Your task to perform on an android device: star an email in the gmail app Image 0: 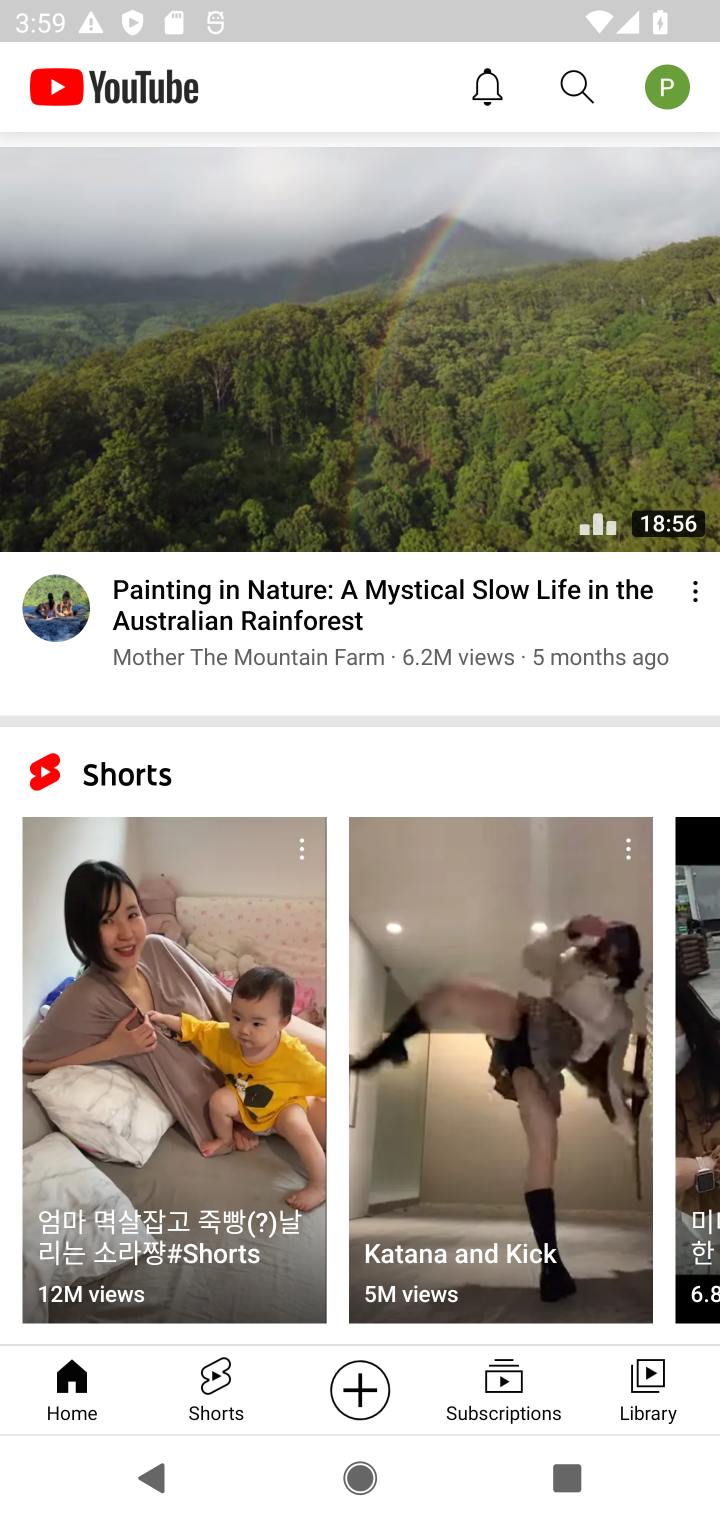
Step 0: press home button
Your task to perform on an android device: star an email in the gmail app Image 1: 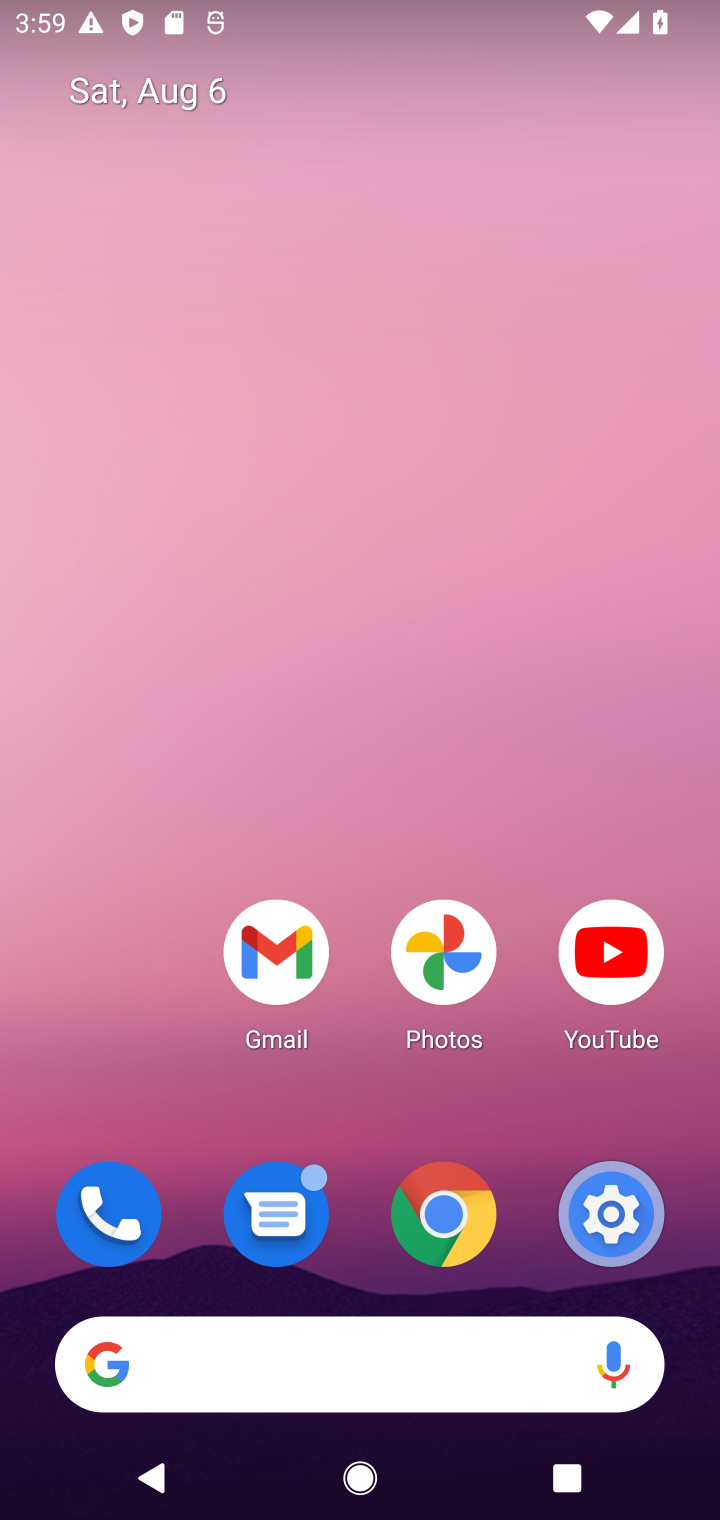
Step 1: click (286, 958)
Your task to perform on an android device: star an email in the gmail app Image 2: 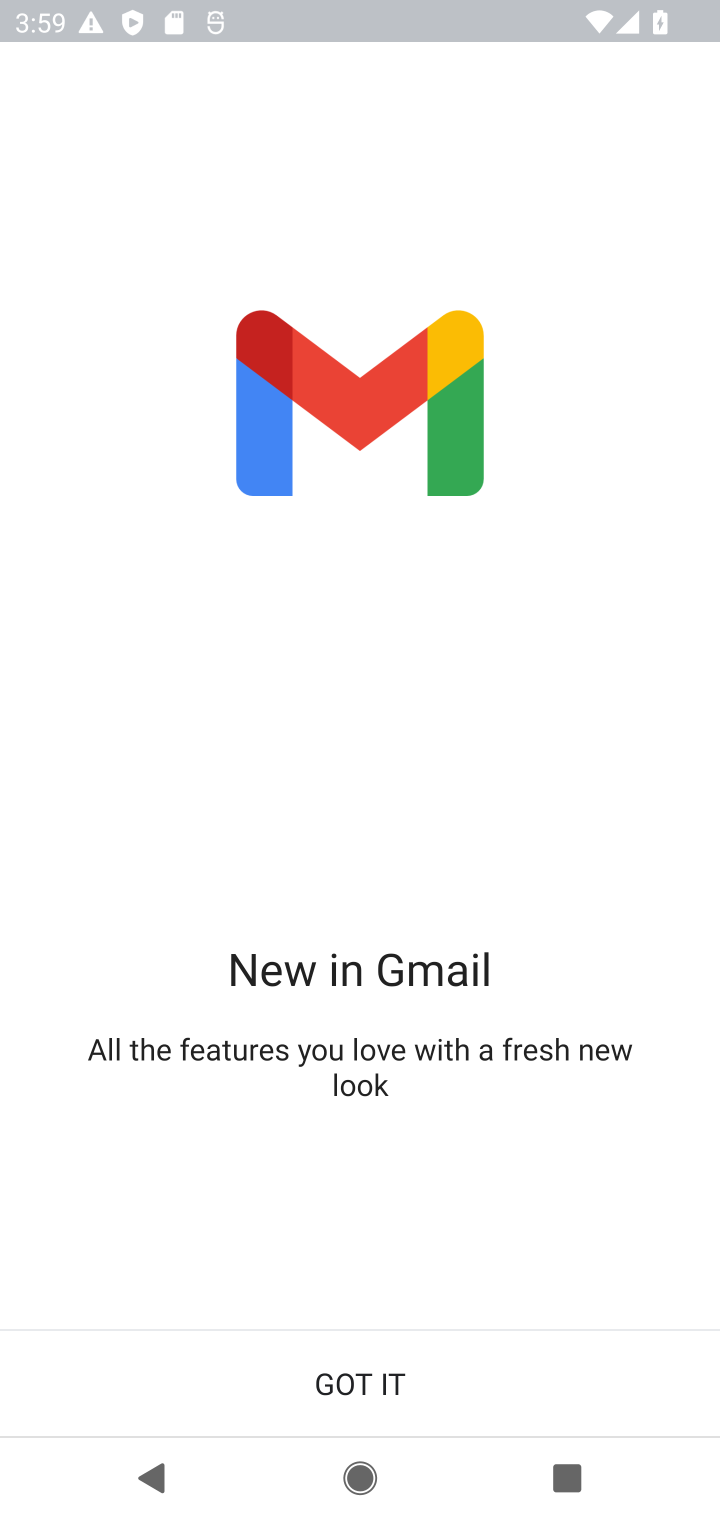
Step 2: click (370, 1379)
Your task to perform on an android device: star an email in the gmail app Image 3: 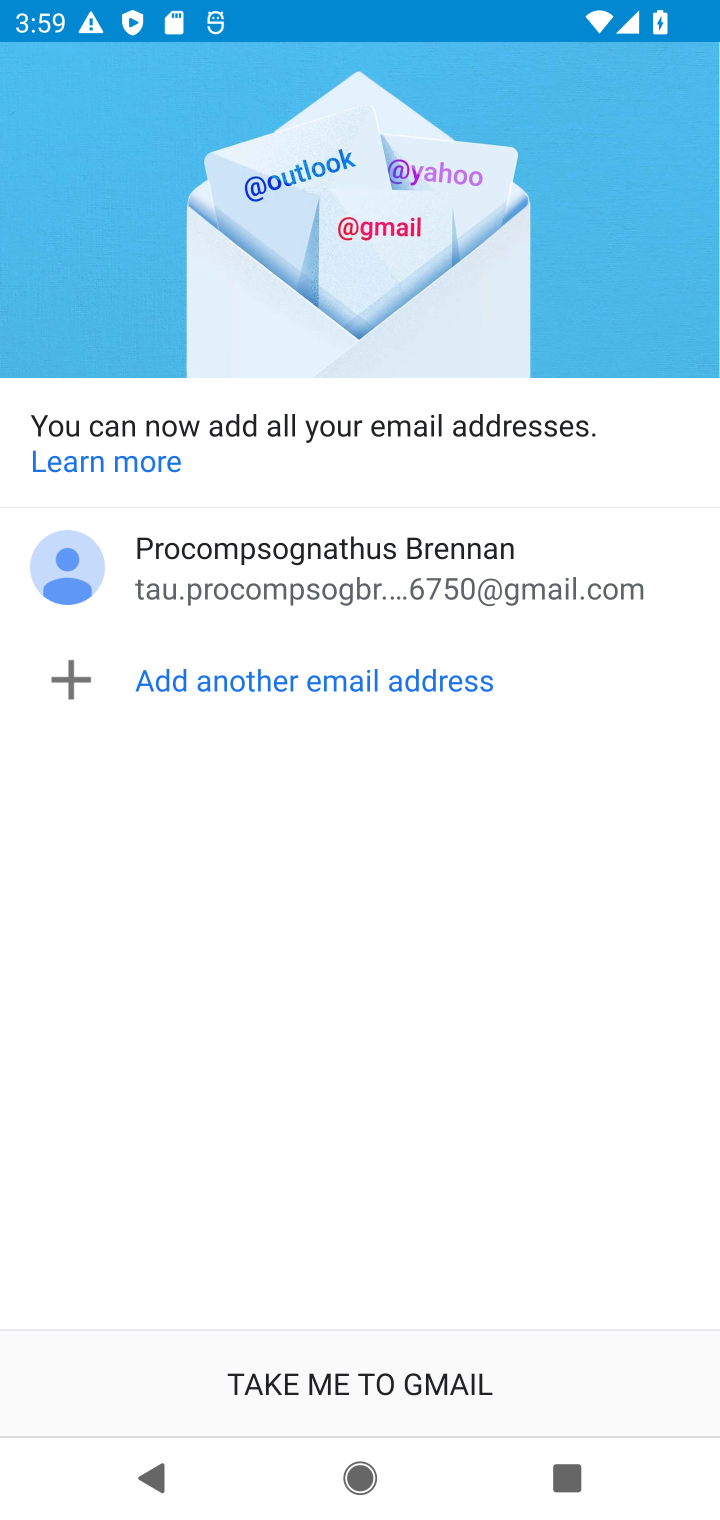
Step 3: click (370, 1379)
Your task to perform on an android device: star an email in the gmail app Image 4: 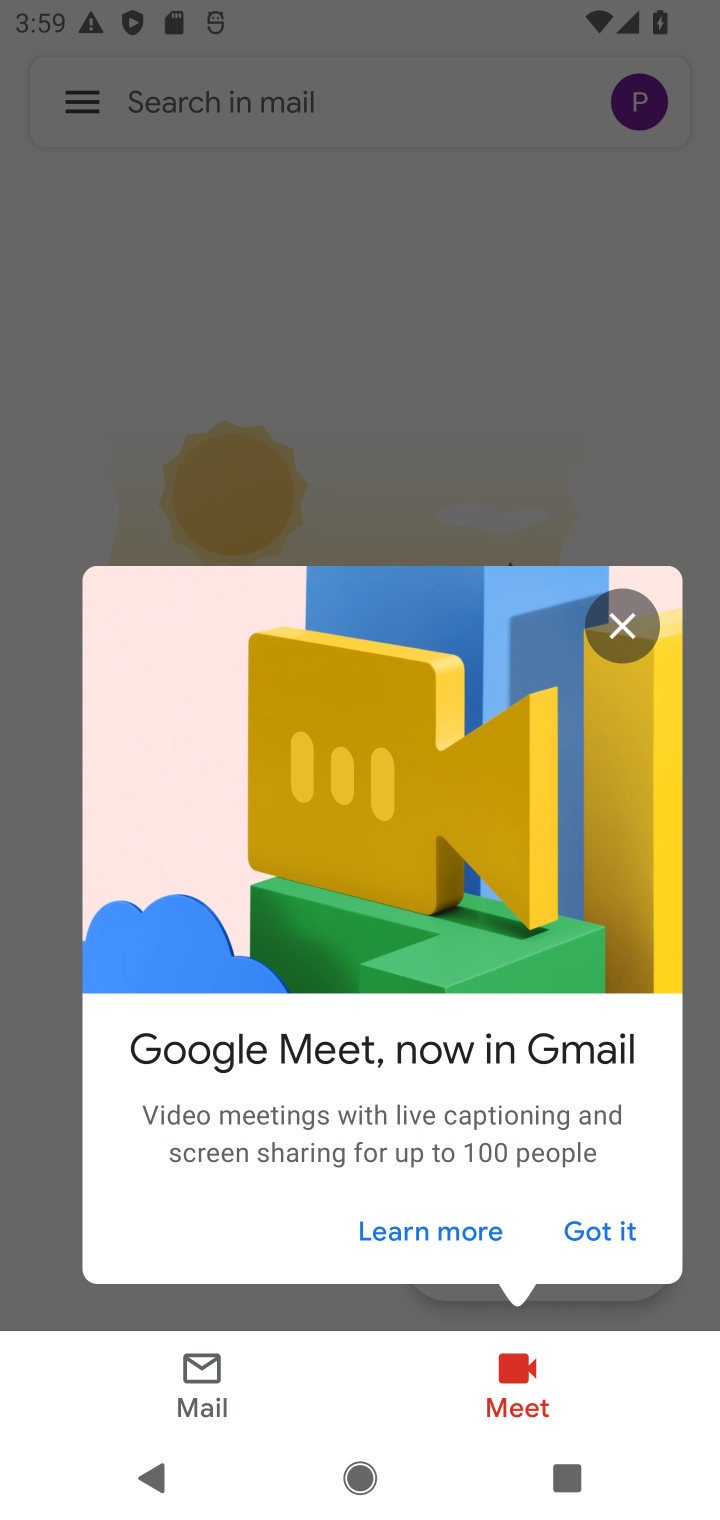
Step 4: click (202, 1379)
Your task to perform on an android device: star an email in the gmail app Image 5: 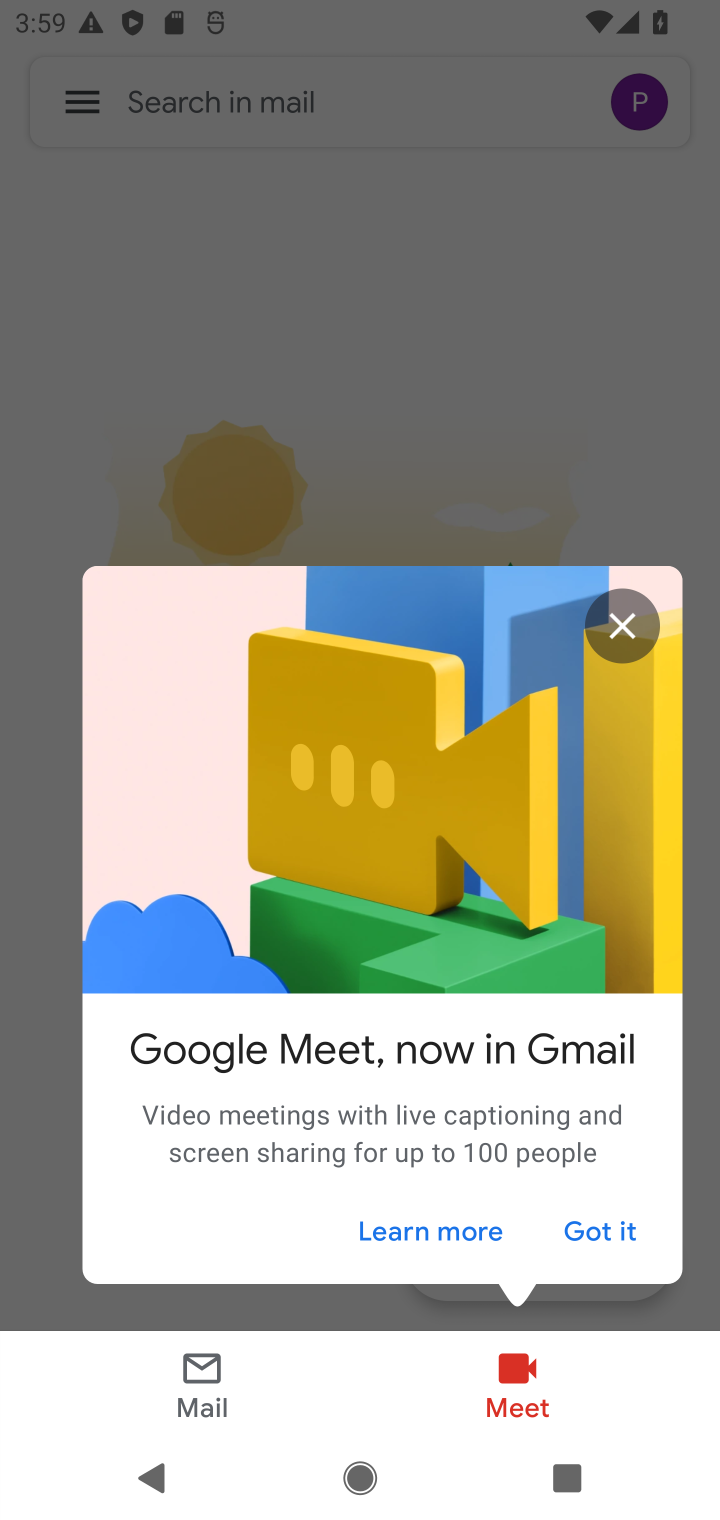
Step 5: click (616, 627)
Your task to perform on an android device: star an email in the gmail app Image 6: 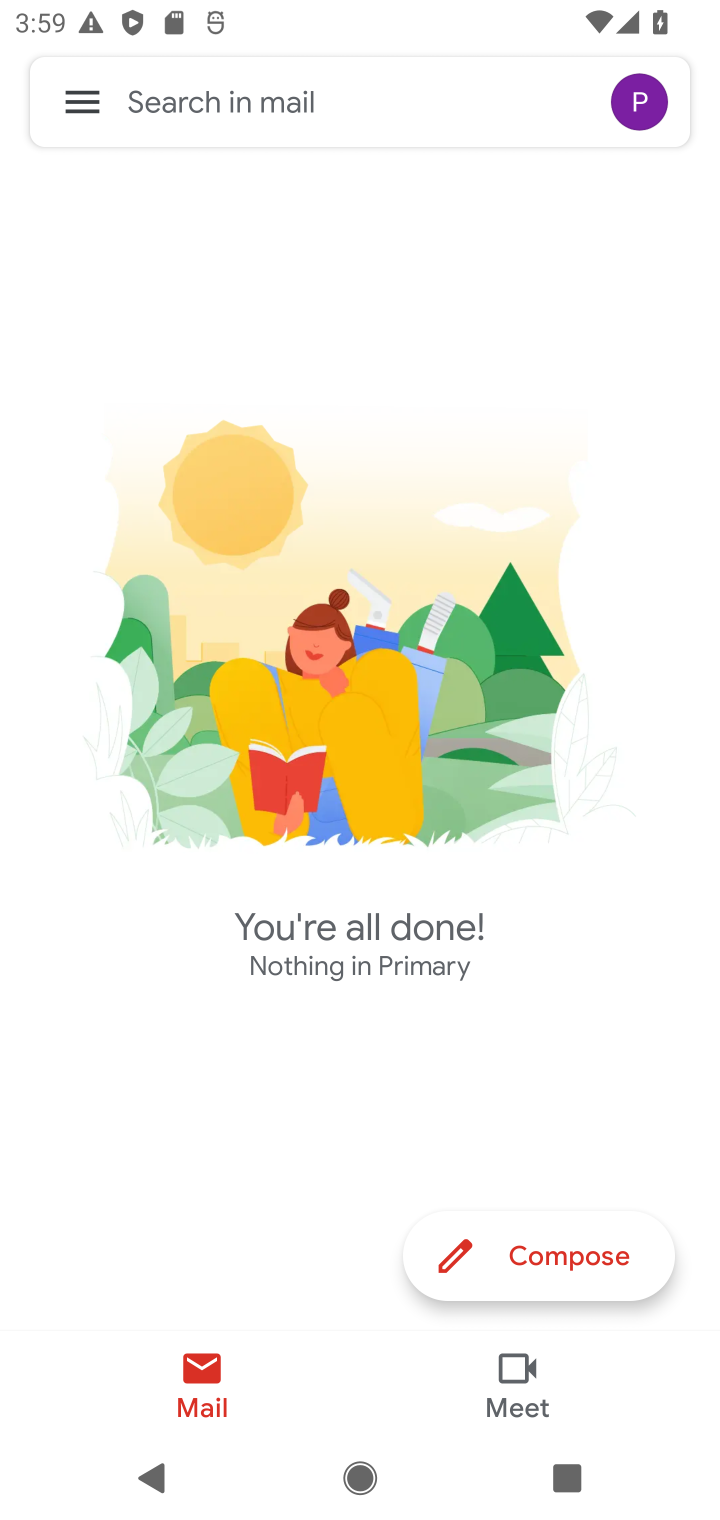
Step 6: click (79, 100)
Your task to perform on an android device: star an email in the gmail app Image 7: 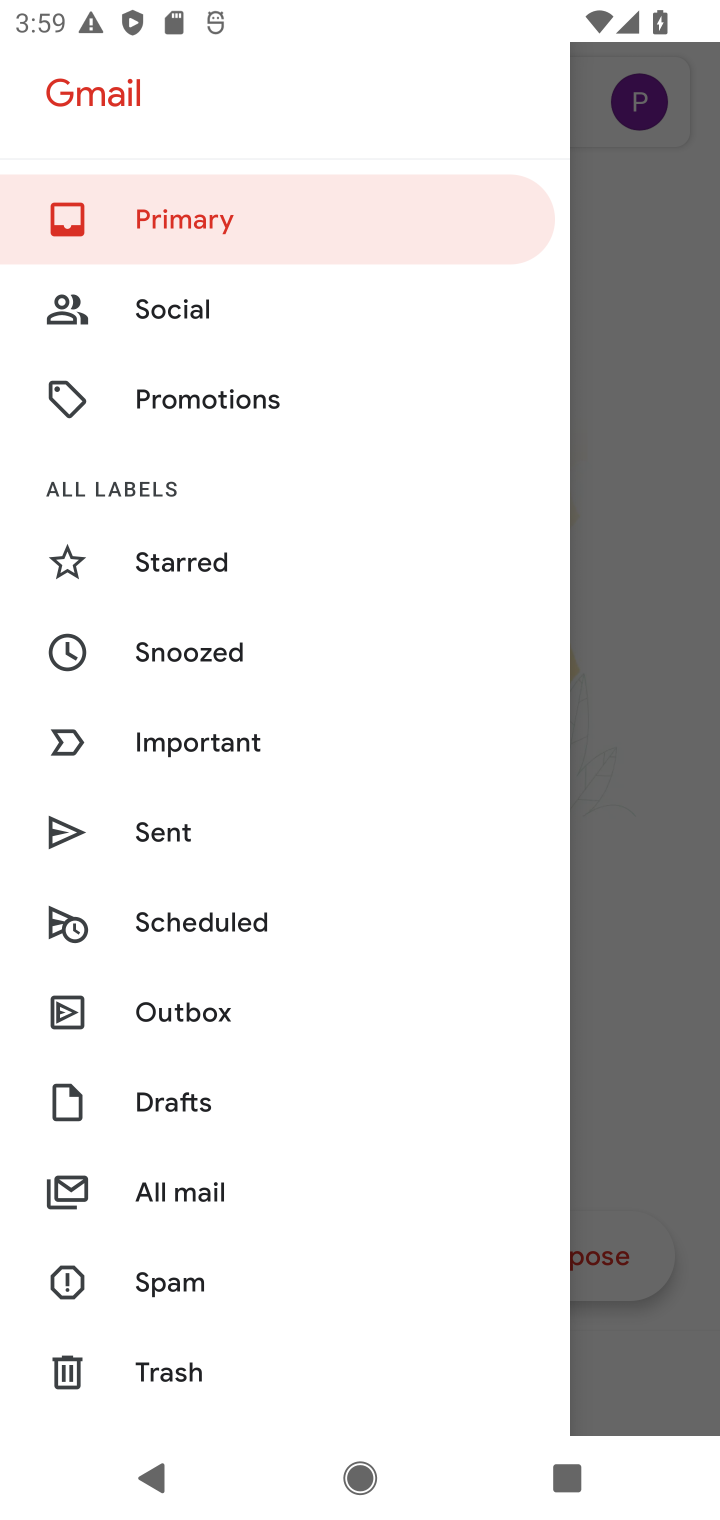
Step 7: click (167, 1193)
Your task to perform on an android device: star an email in the gmail app Image 8: 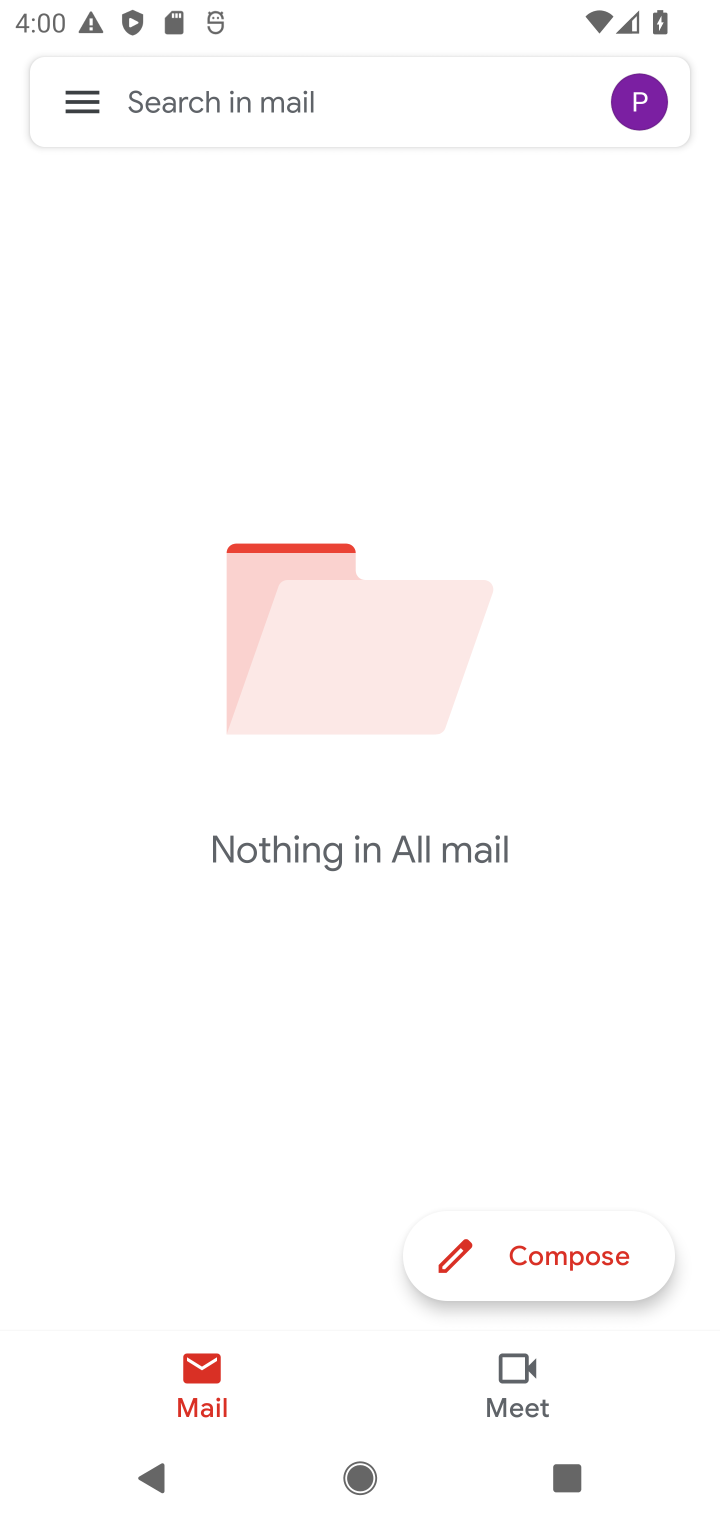
Step 8: task complete